Your task to perform on an android device: Search for Mexican restaurants on Maps Image 0: 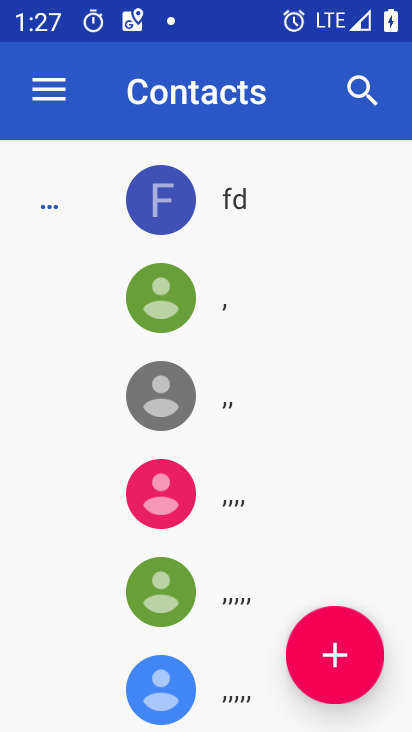
Step 0: press home button
Your task to perform on an android device: Search for Mexican restaurants on Maps Image 1: 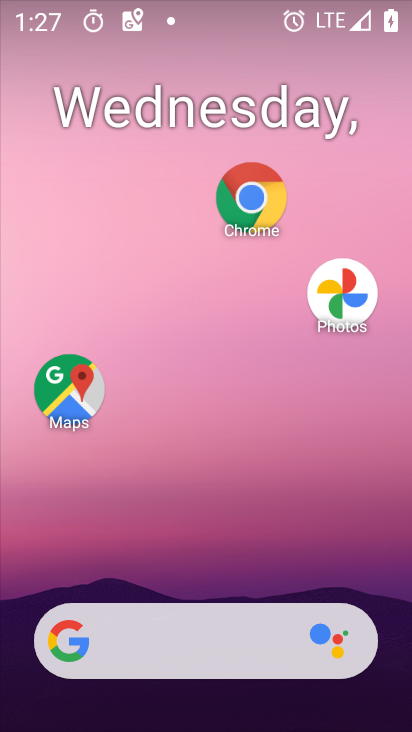
Step 1: click (67, 394)
Your task to perform on an android device: Search for Mexican restaurants on Maps Image 2: 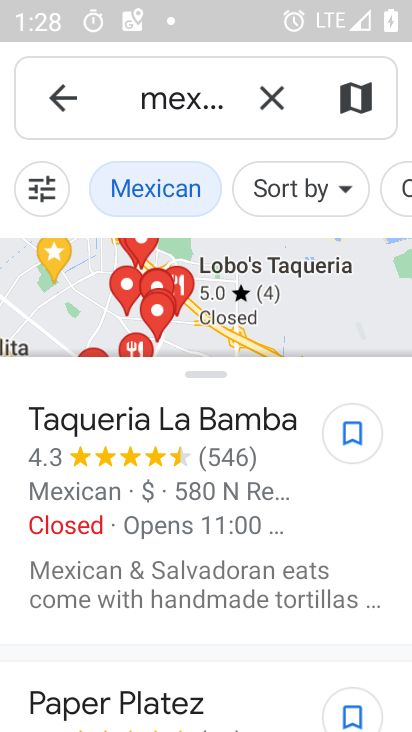
Step 2: task complete